Your task to perform on an android device: Open my contact list Image 0: 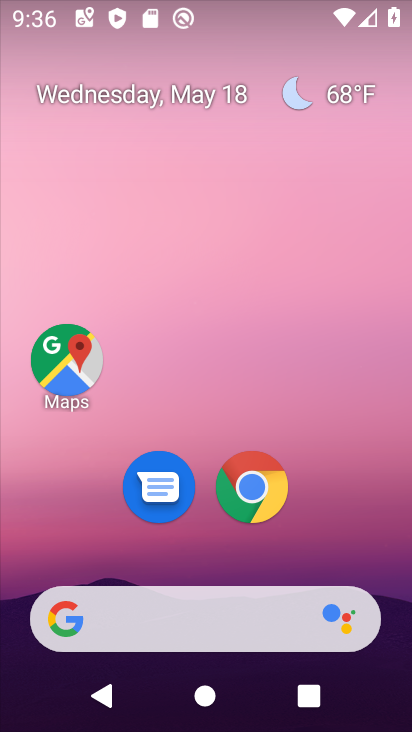
Step 0: drag from (391, 536) to (343, 160)
Your task to perform on an android device: Open my contact list Image 1: 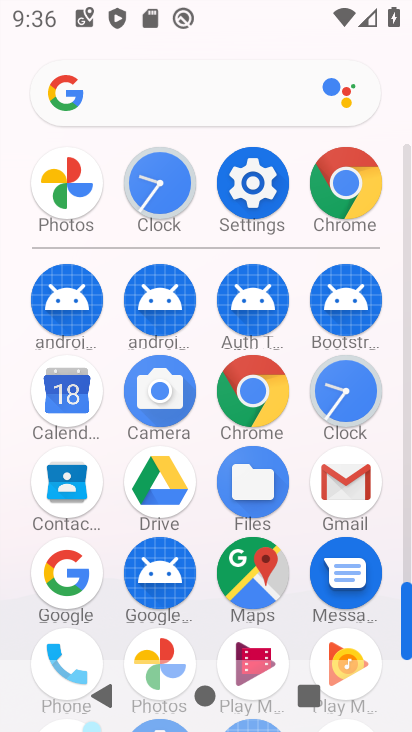
Step 1: drag from (288, 592) to (288, 328)
Your task to perform on an android device: Open my contact list Image 2: 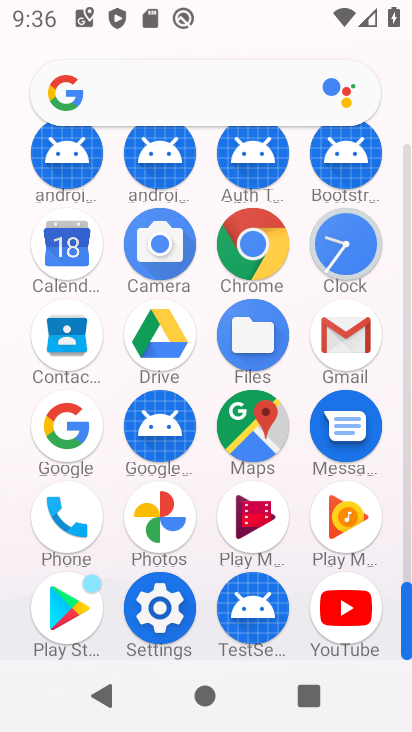
Step 2: click (78, 334)
Your task to perform on an android device: Open my contact list Image 3: 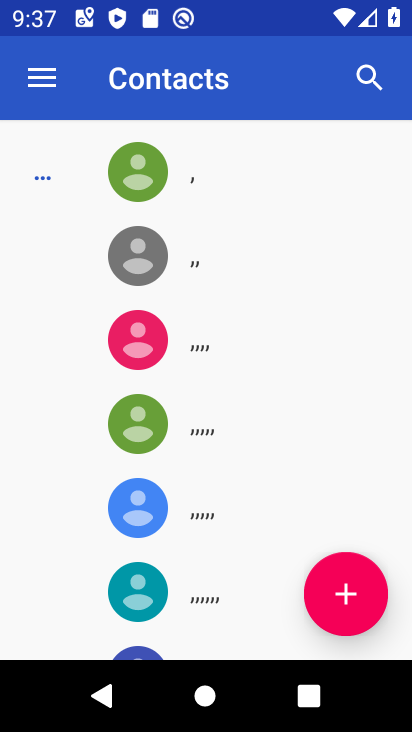
Step 3: task complete